Your task to perform on an android device: Go to calendar. Show me events next week Image 0: 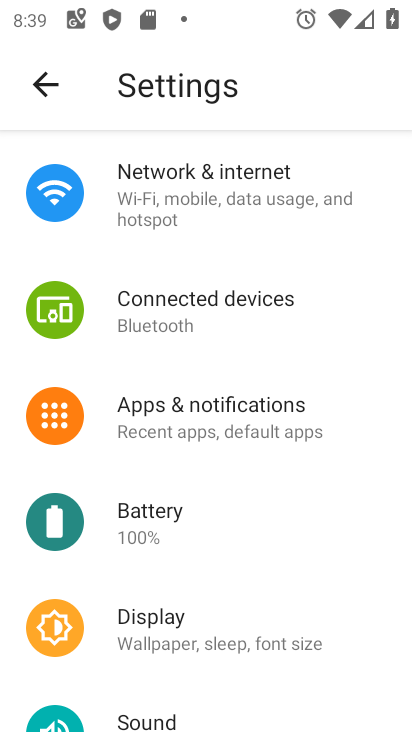
Step 0: press home button
Your task to perform on an android device: Go to calendar. Show me events next week Image 1: 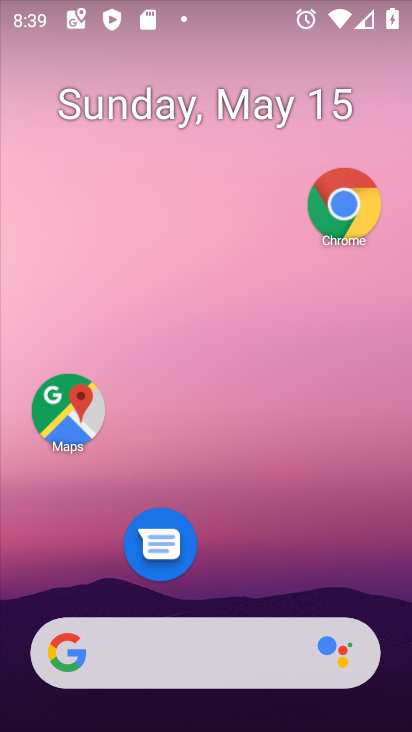
Step 1: drag from (284, 599) to (320, 80)
Your task to perform on an android device: Go to calendar. Show me events next week Image 2: 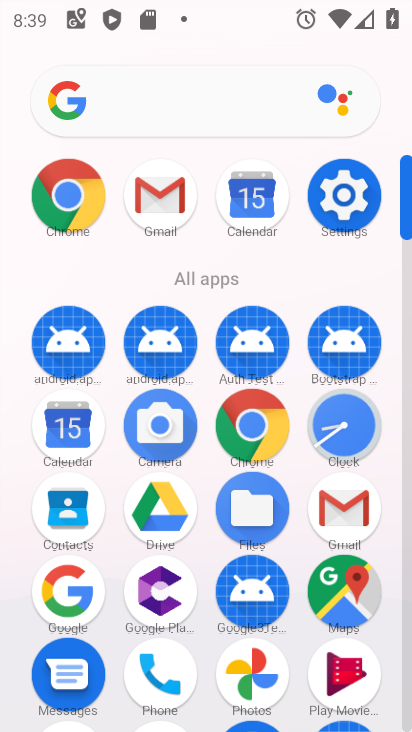
Step 2: click (52, 432)
Your task to perform on an android device: Go to calendar. Show me events next week Image 3: 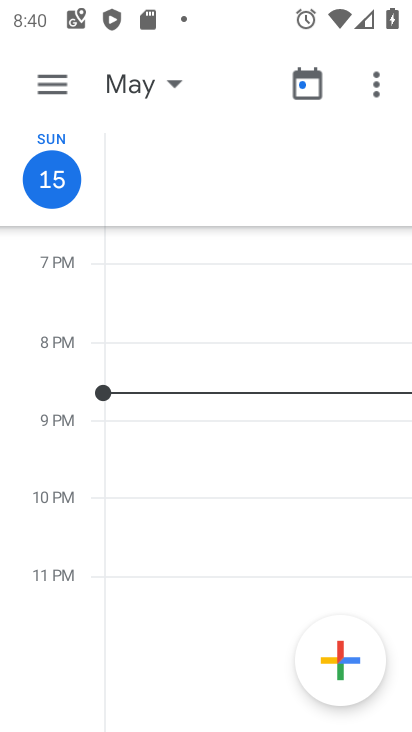
Step 3: click (148, 89)
Your task to perform on an android device: Go to calendar. Show me events next week Image 4: 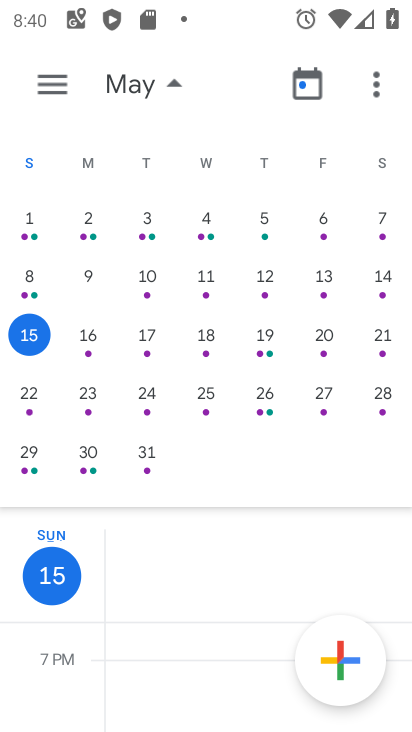
Step 4: click (32, 398)
Your task to perform on an android device: Go to calendar. Show me events next week Image 5: 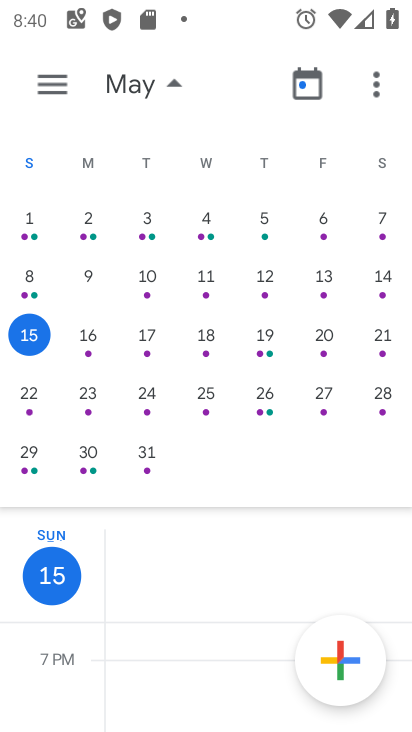
Step 5: click (42, 410)
Your task to perform on an android device: Go to calendar. Show me events next week Image 6: 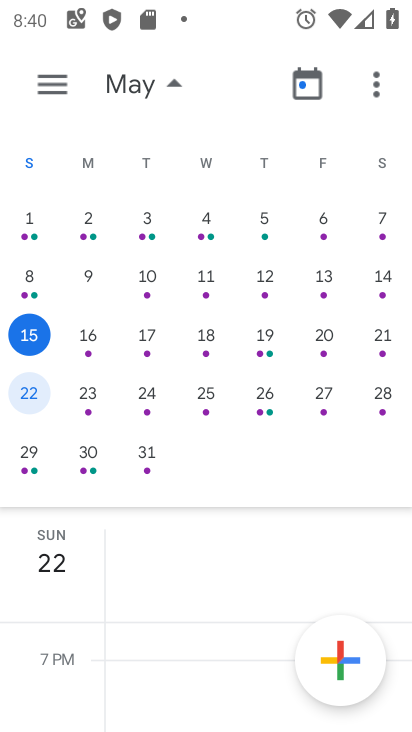
Step 6: click (103, 405)
Your task to perform on an android device: Go to calendar. Show me events next week Image 7: 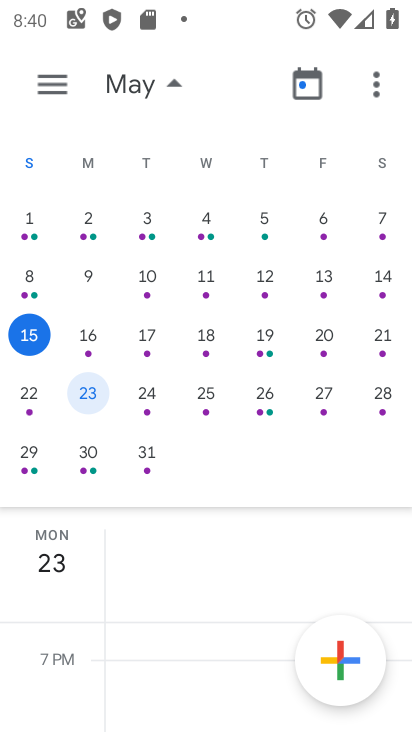
Step 7: click (150, 410)
Your task to perform on an android device: Go to calendar. Show me events next week Image 8: 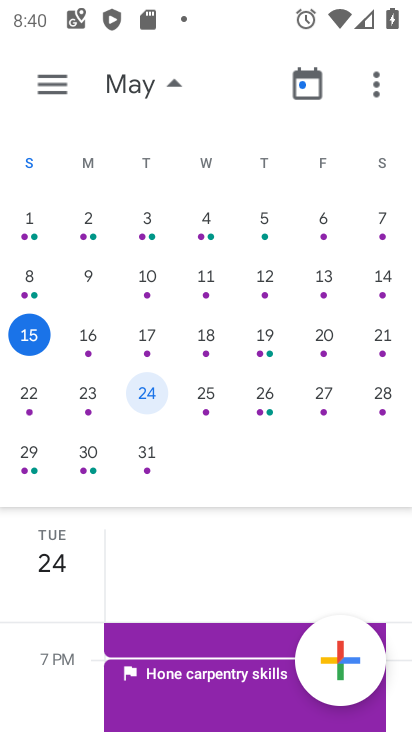
Step 8: click (215, 409)
Your task to perform on an android device: Go to calendar. Show me events next week Image 9: 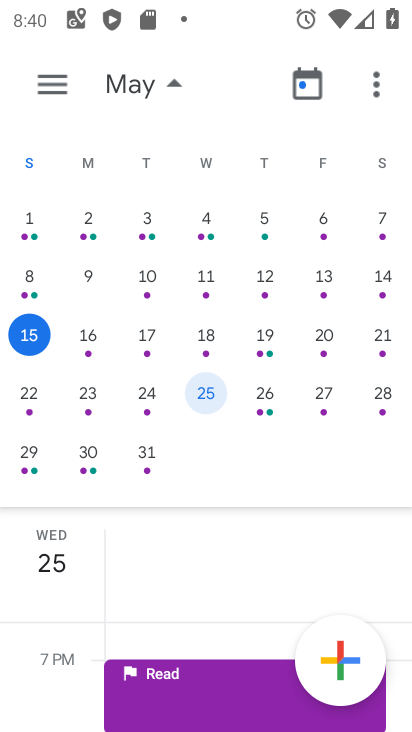
Step 9: click (271, 404)
Your task to perform on an android device: Go to calendar. Show me events next week Image 10: 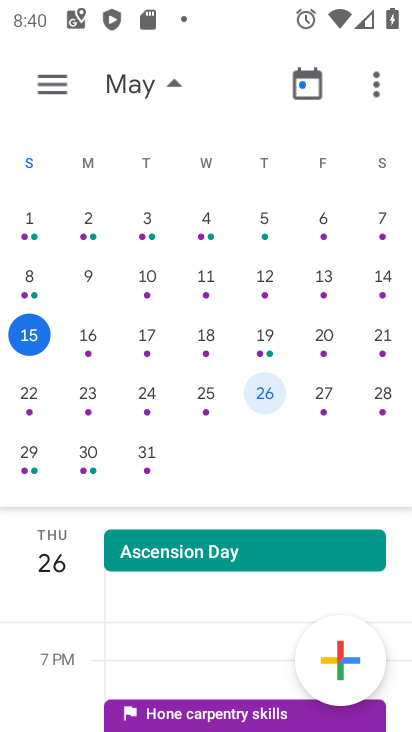
Step 10: click (337, 392)
Your task to perform on an android device: Go to calendar. Show me events next week Image 11: 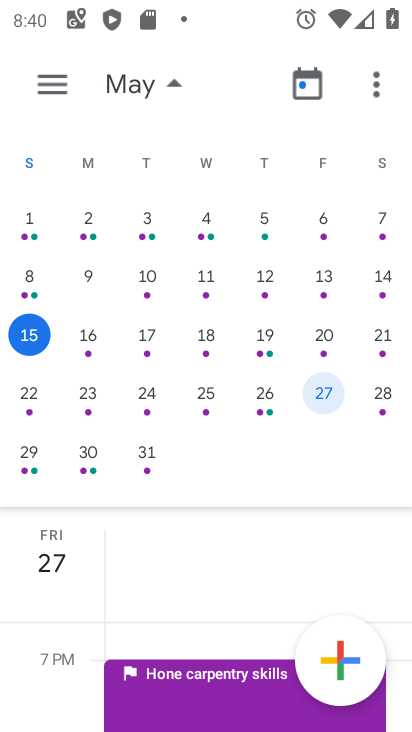
Step 11: click (390, 401)
Your task to perform on an android device: Go to calendar. Show me events next week Image 12: 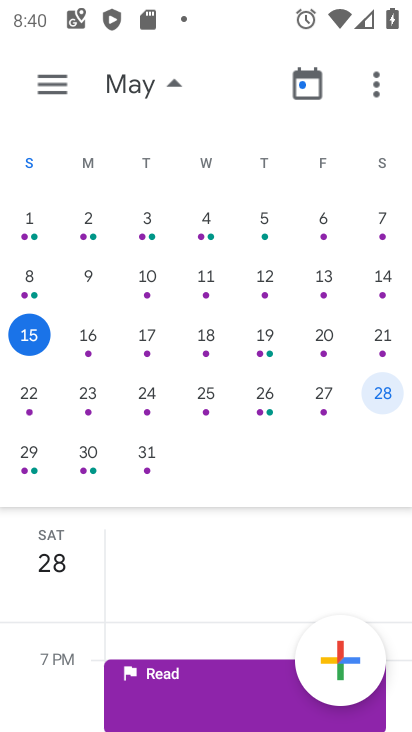
Step 12: task complete